Your task to perform on an android device: see creations saved in the google photos Image 0: 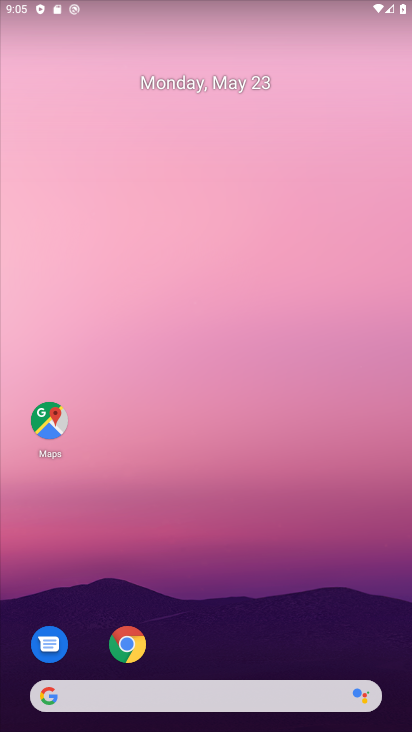
Step 0: drag from (262, 564) to (155, 151)
Your task to perform on an android device: see creations saved in the google photos Image 1: 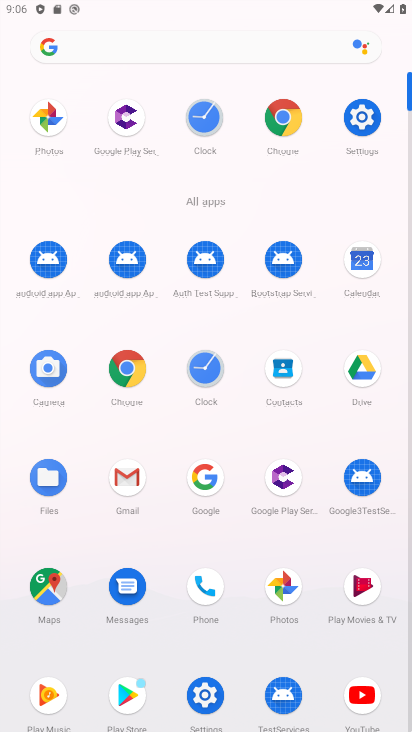
Step 1: click (287, 589)
Your task to perform on an android device: see creations saved in the google photos Image 2: 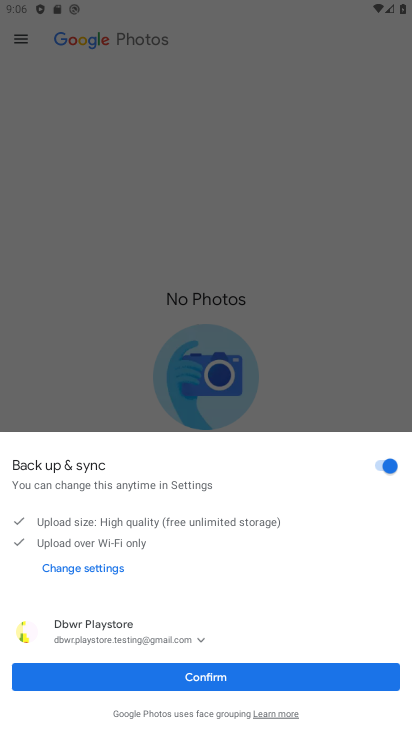
Step 2: click (209, 676)
Your task to perform on an android device: see creations saved in the google photos Image 3: 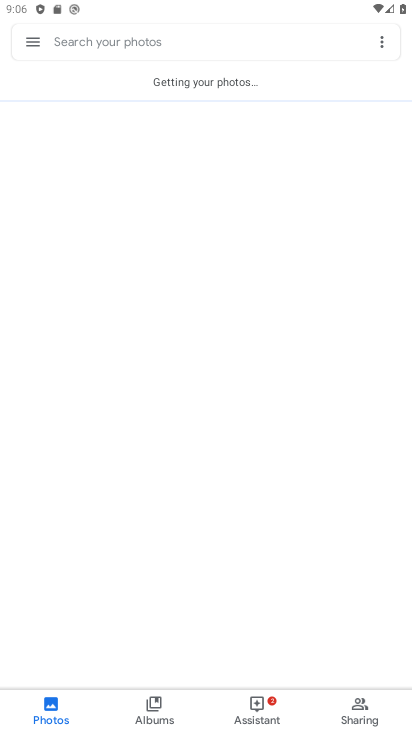
Step 3: click (165, 73)
Your task to perform on an android device: see creations saved in the google photos Image 4: 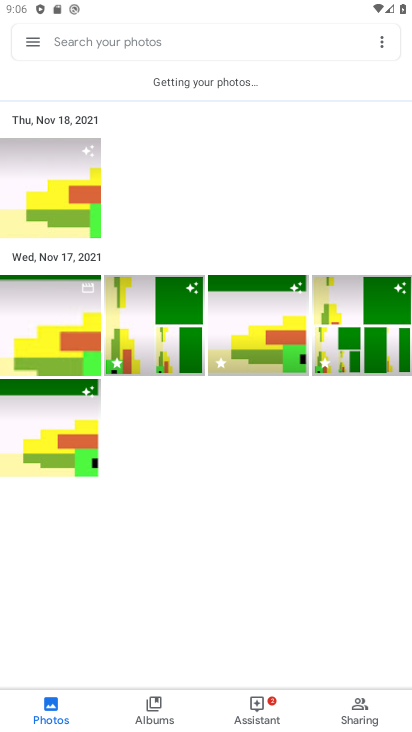
Step 4: click (261, 321)
Your task to perform on an android device: see creations saved in the google photos Image 5: 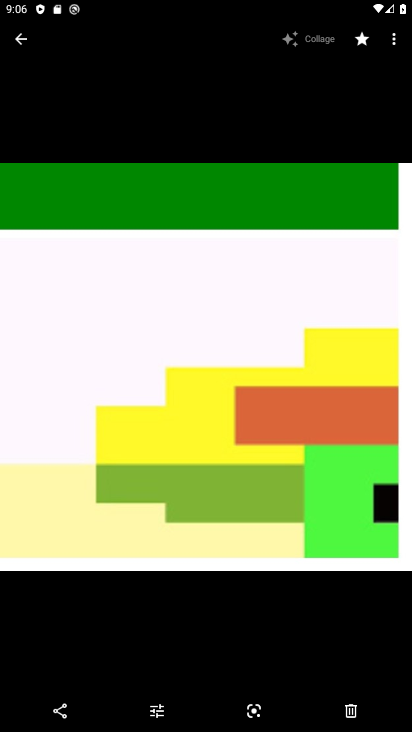
Step 5: click (389, 47)
Your task to perform on an android device: see creations saved in the google photos Image 6: 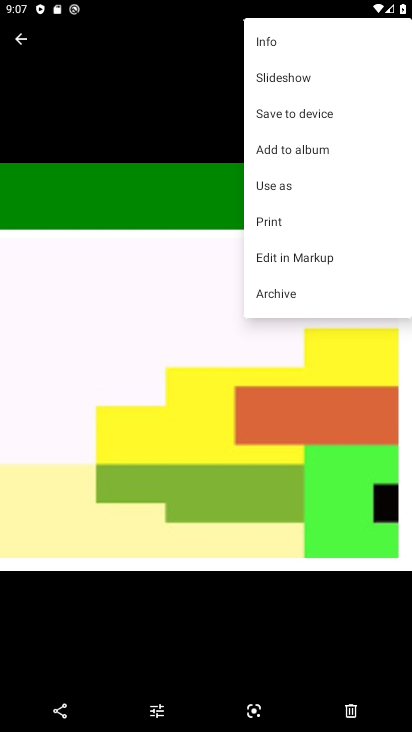
Step 6: click (284, 111)
Your task to perform on an android device: see creations saved in the google photos Image 7: 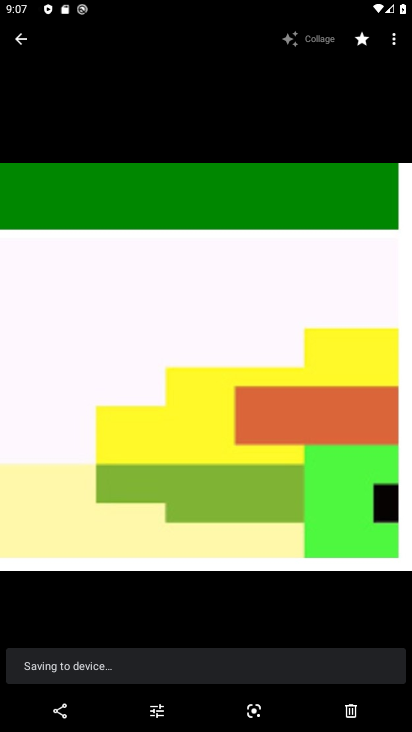
Step 7: task complete